Your task to perform on an android device: Open calendar and show me the fourth week of next month Image 0: 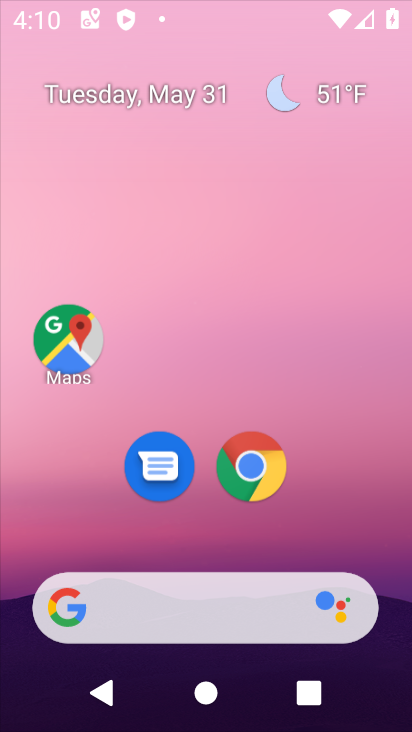
Step 0: press home button
Your task to perform on an android device: Open calendar and show me the fourth week of next month Image 1: 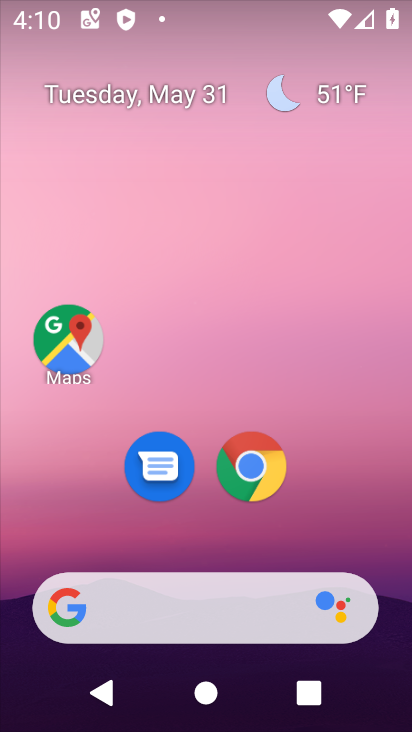
Step 1: drag from (193, 553) to (217, 25)
Your task to perform on an android device: Open calendar and show me the fourth week of next month Image 2: 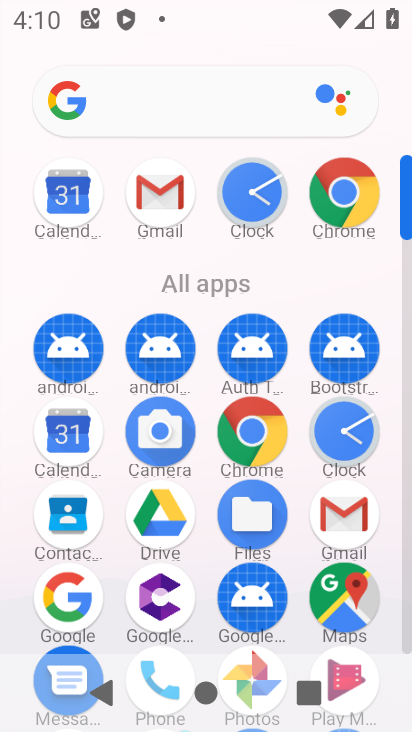
Step 2: click (70, 425)
Your task to perform on an android device: Open calendar and show me the fourth week of next month Image 3: 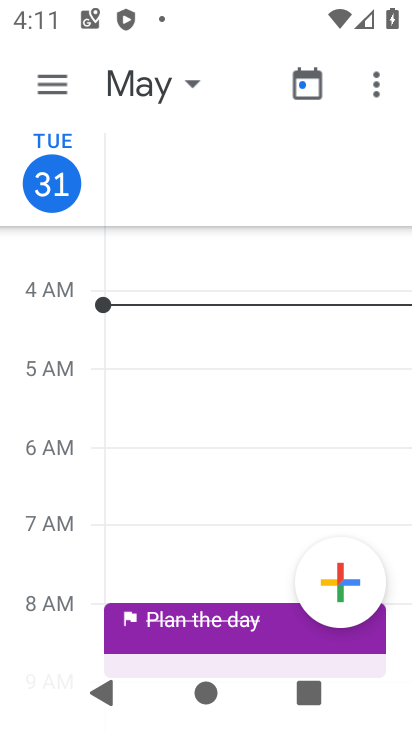
Step 3: click (74, 82)
Your task to perform on an android device: Open calendar and show me the fourth week of next month Image 4: 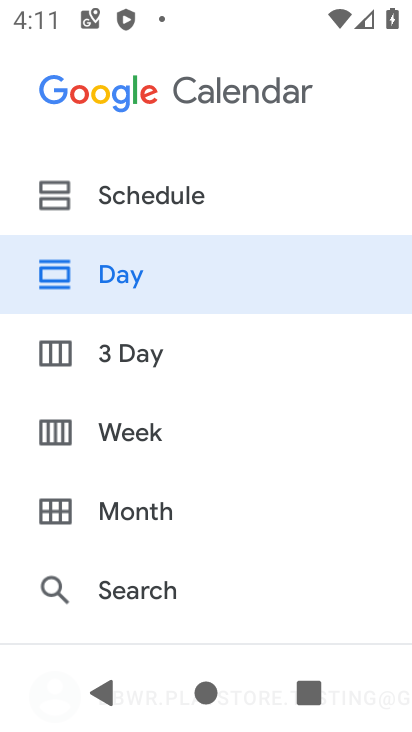
Step 4: click (89, 428)
Your task to perform on an android device: Open calendar and show me the fourth week of next month Image 5: 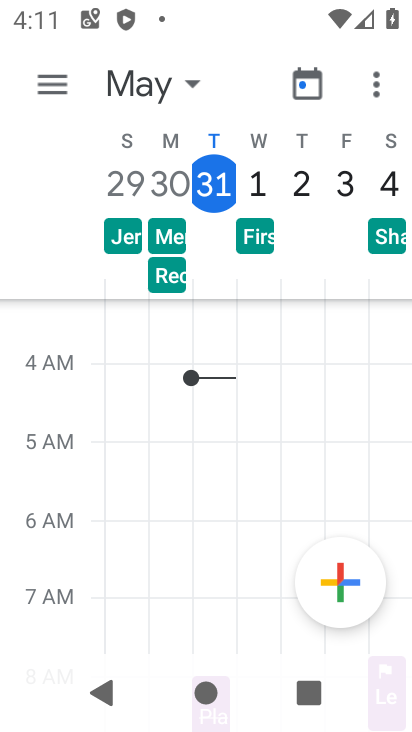
Step 5: drag from (389, 187) to (81, 177)
Your task to perform on an android device: Open calendar and show me the fourth week of next month Image 6: 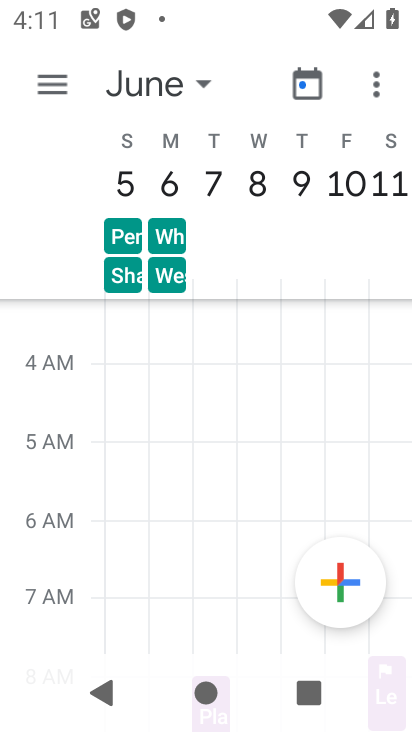
Step 6: drag from (393, 184) to (82, 178)
Your task to perform on an android device: Open calendar and show me the fourth week of next month Image 7: 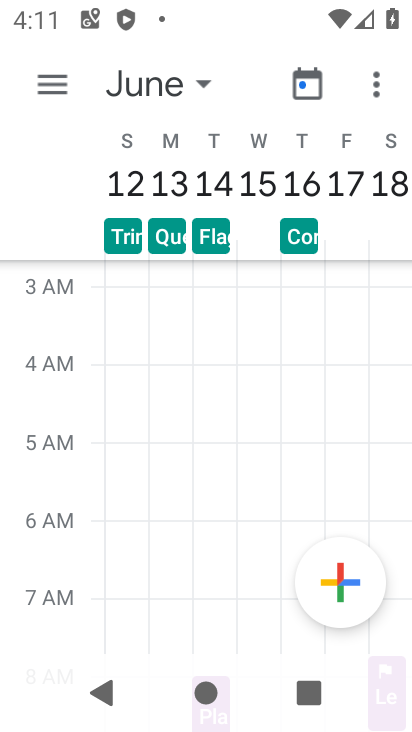
Step 7: drag from (387, 185) to (106, 167)
Your task to perform on an android device: Open calendar and show me the fourth week of next month Image 8: 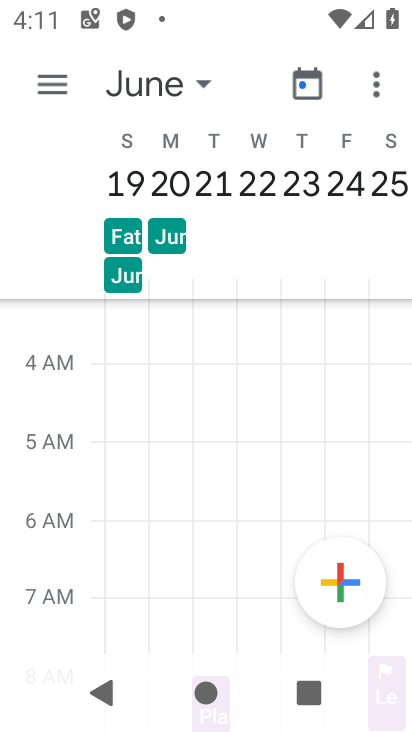
Step 8: click (125, 173)
Your task to perform on an android device: Open calendar and show me the fourth week of next month Image 9: 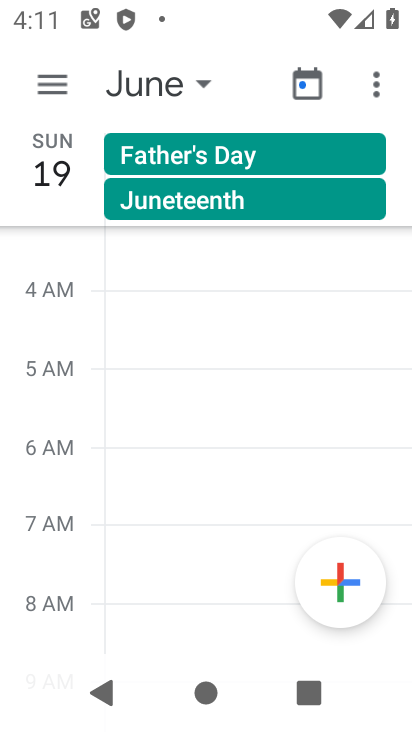
Step 9: click (75, 191)
Your task to perform on an android device: Open calendar and show me the fourth week of next month Image 10: 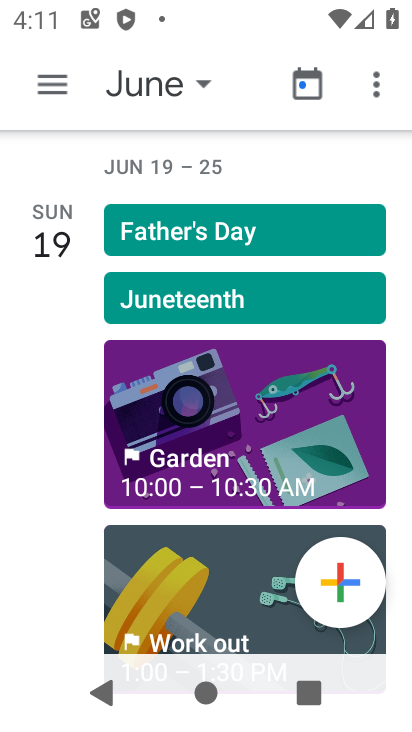
Step 10: task complete